Your task to perform on an android device: Empty the shopping cart on ebay. Search for "apple airpods pro" on ebay, select the first entry, add it to the cart, then select checkout. Image 0: 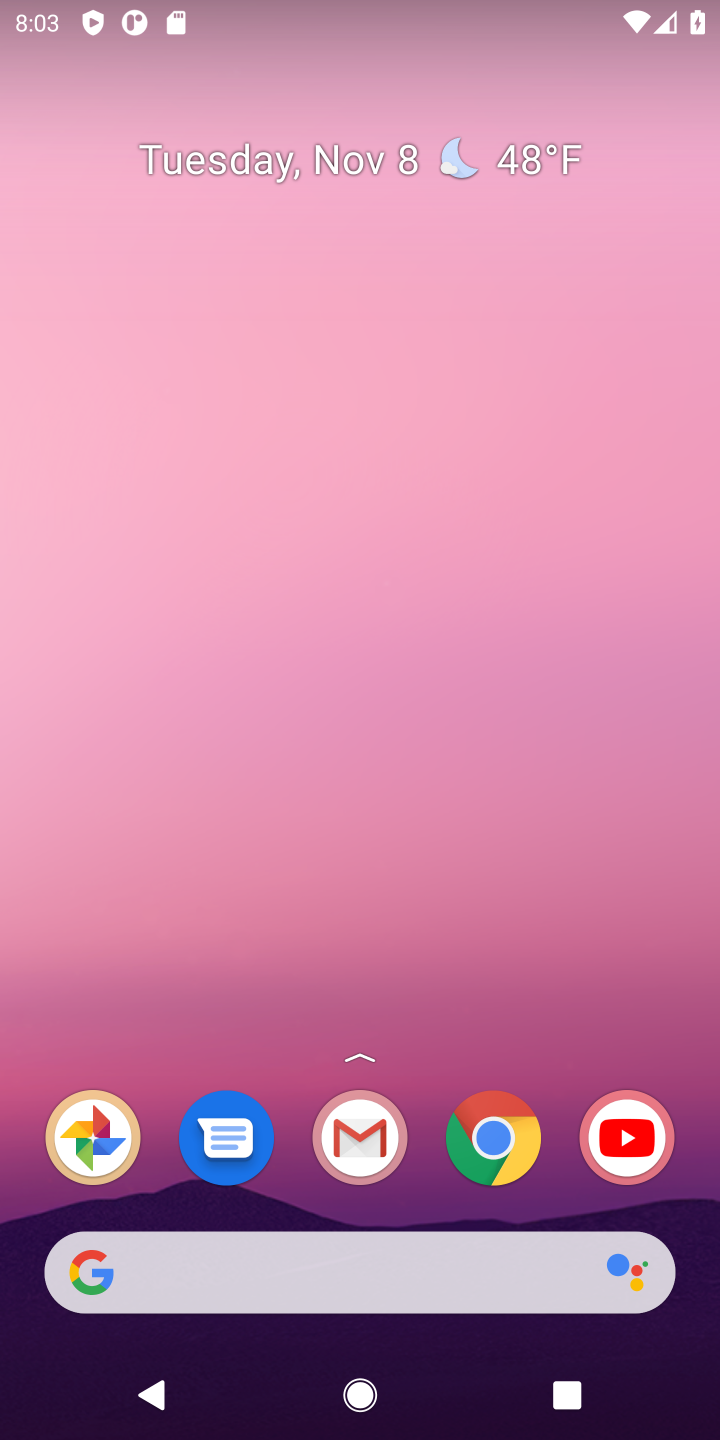
Step 0: click (497, 1158)
Your task to perform on an android device: Empty the shopping cart on ebay. Search for "apple airpods pro" on ebay, select the first entry, add it to the cart, then select checkout. Image 1: 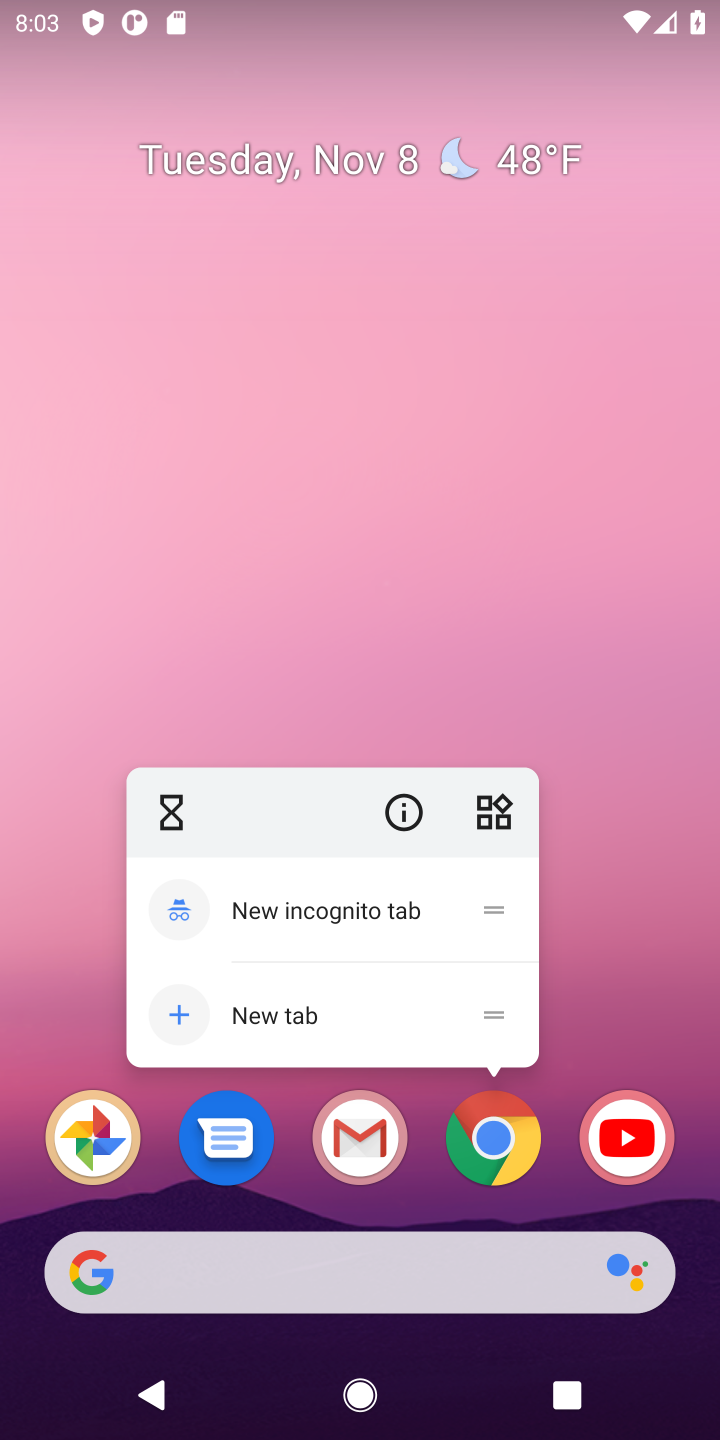
Step 1: click (488, 1142)
Your task to perform on an android device: Empty the shopping cart on ebay. Search for "apple airpods pro" on ebay, select the first entry, add it to the cart, then select checkout. Image 2: 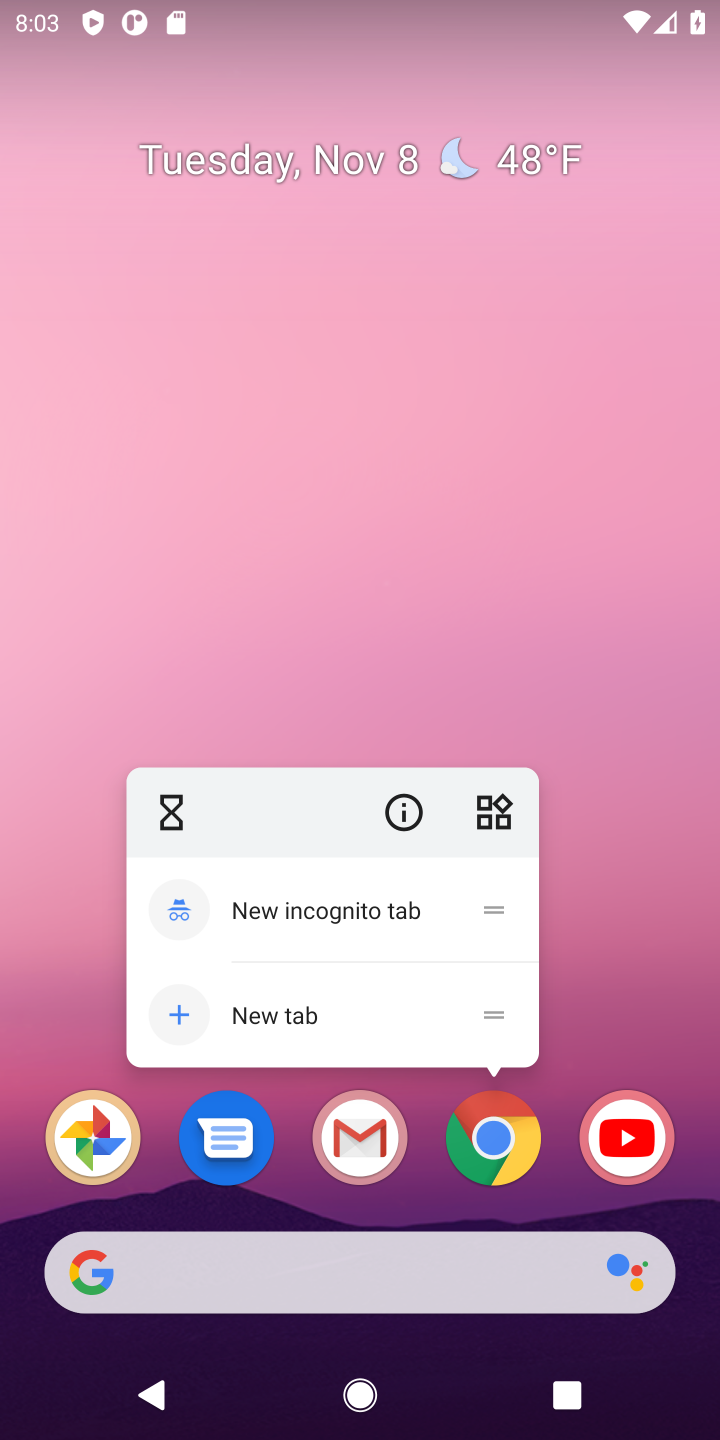
Step 2: click (488, 1144)
Your task to perform on an android device: Empty the shopping cart on ebay. Search for "apple airpods pro" on ebay, select the first entry, add it to the cart, then select checkout. Image 3: 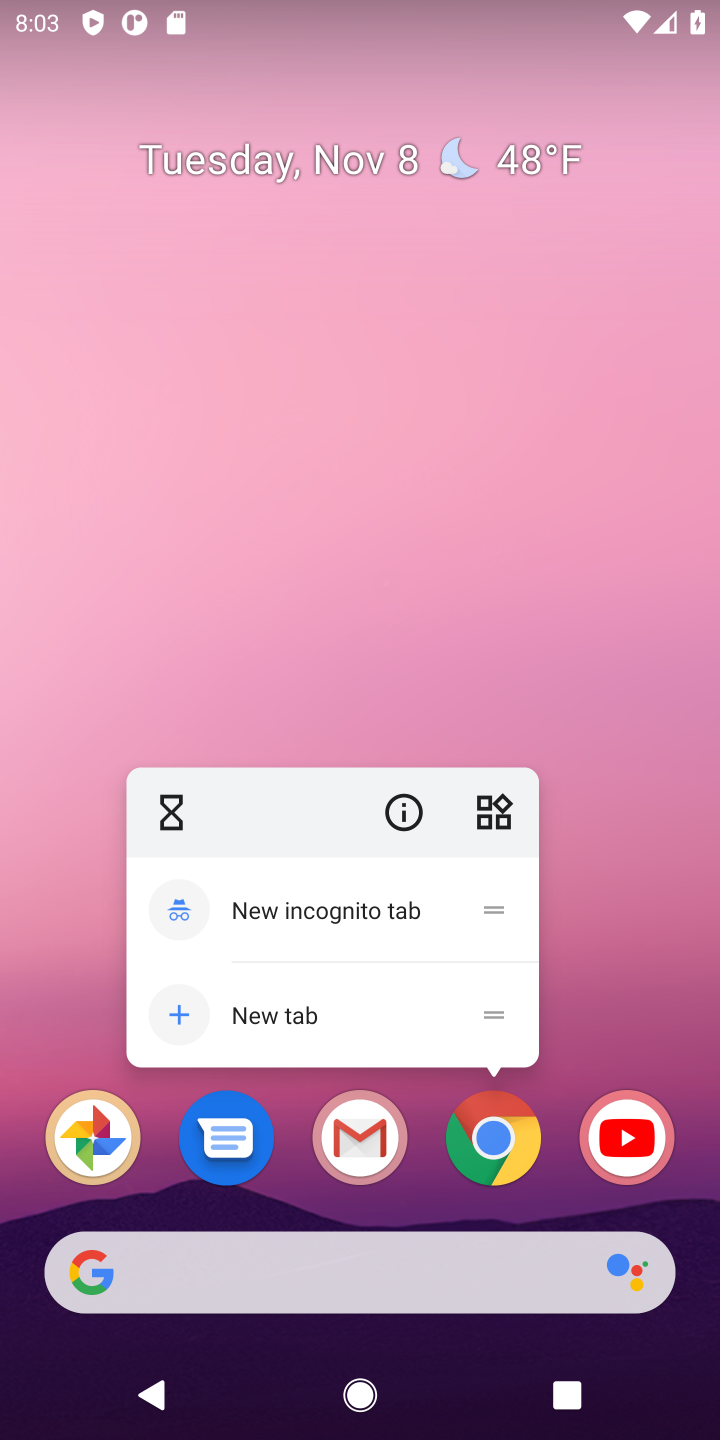
Step 3: click (488, 1155)
Your task to perform on an android device: Empty the shopping cart on ebay. Search for "apple airpods pro" on ebay, select the first entry, add it to the cart, then select checkout. Image 4: 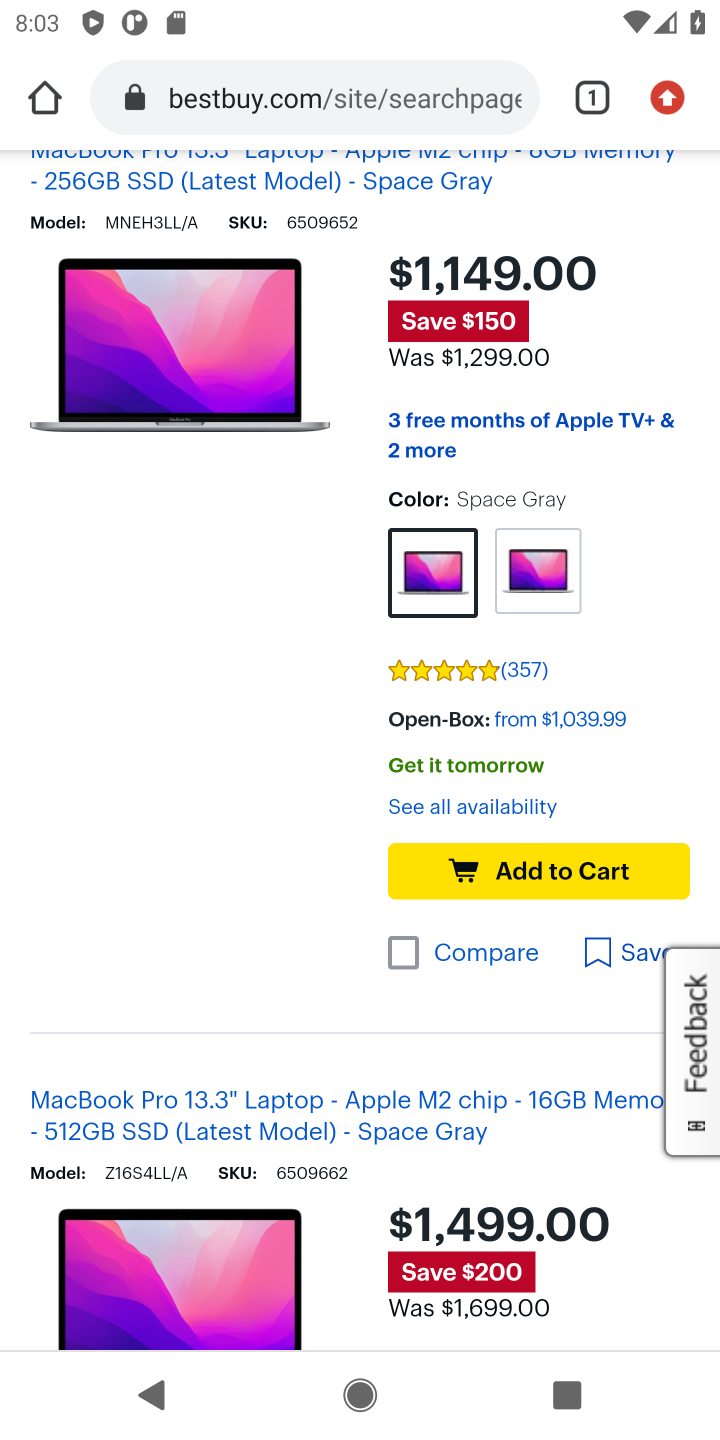
Step 4: click (416, 86)
Your task to perform on an android device: Empty the shopping cart on ebay. Search for "apple airpods pro" on ebay, select the first entry, add it to the cart, then select checkout. Image 5: 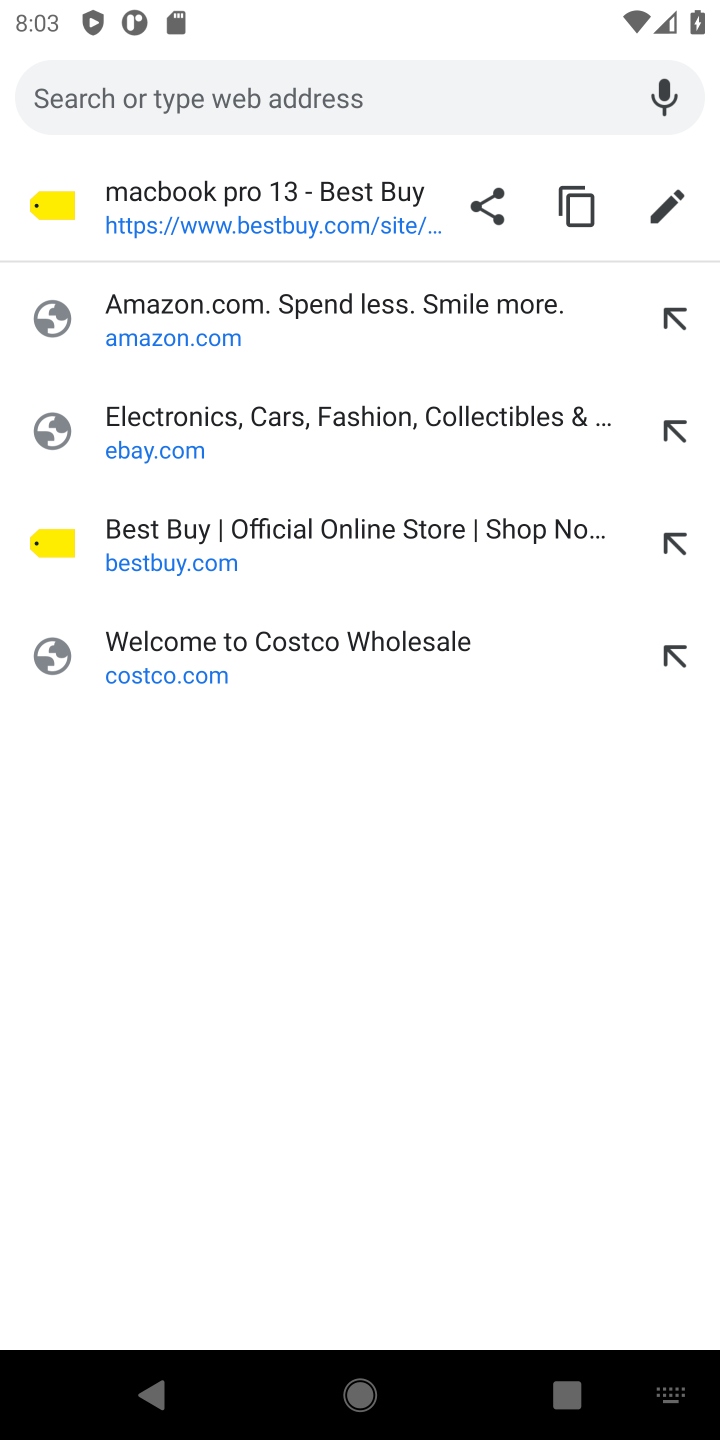
Step 5: click (109, 444)
Your task to perform on an android device: Empty the shopping cart on ebay. Search for "apple airpods pro" on ebay, select the first entry, add it to the cart, then select checkout. Image 6: 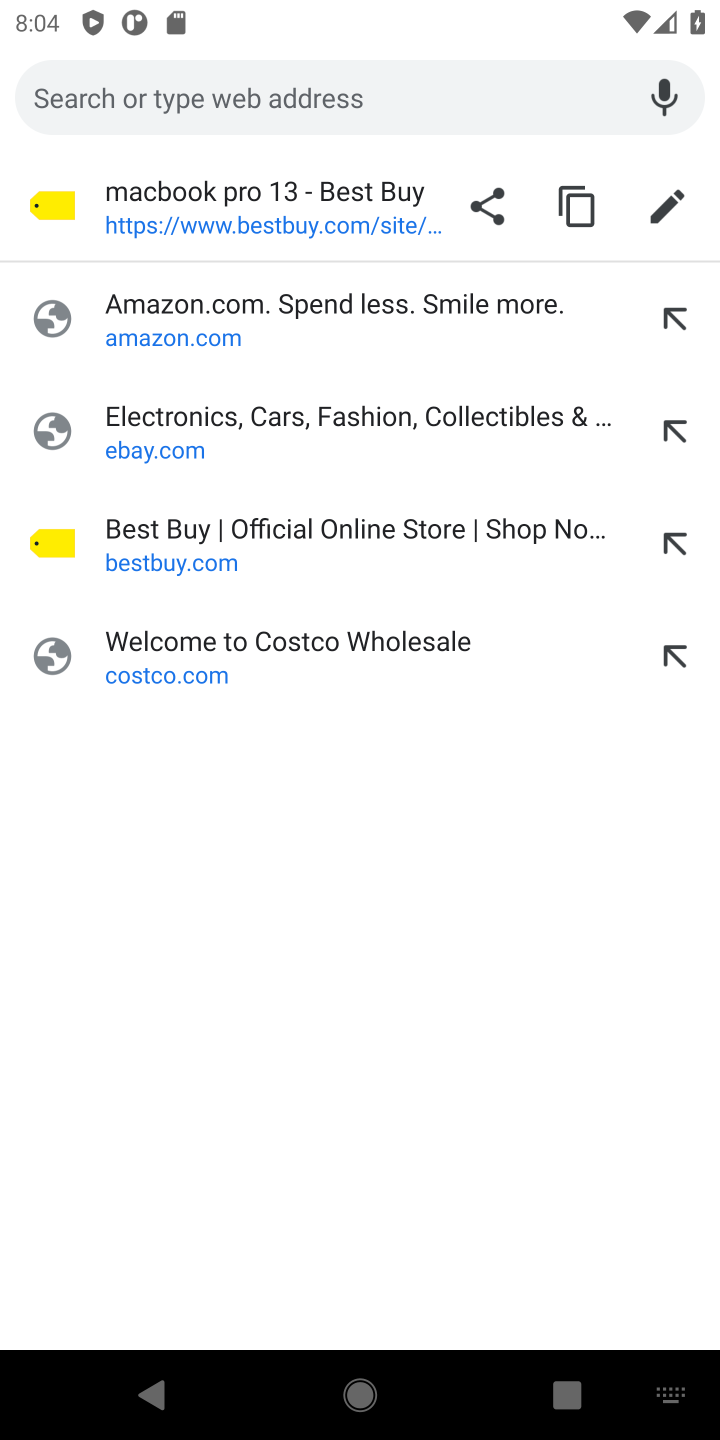
Step 6: click (135, 439)
Your task to perform on an android device: Empty the shopping cart on ebay. Search for "apple airpods pro" on ebay, select the first entry, add it to the cart, then select checkout. Image 7: 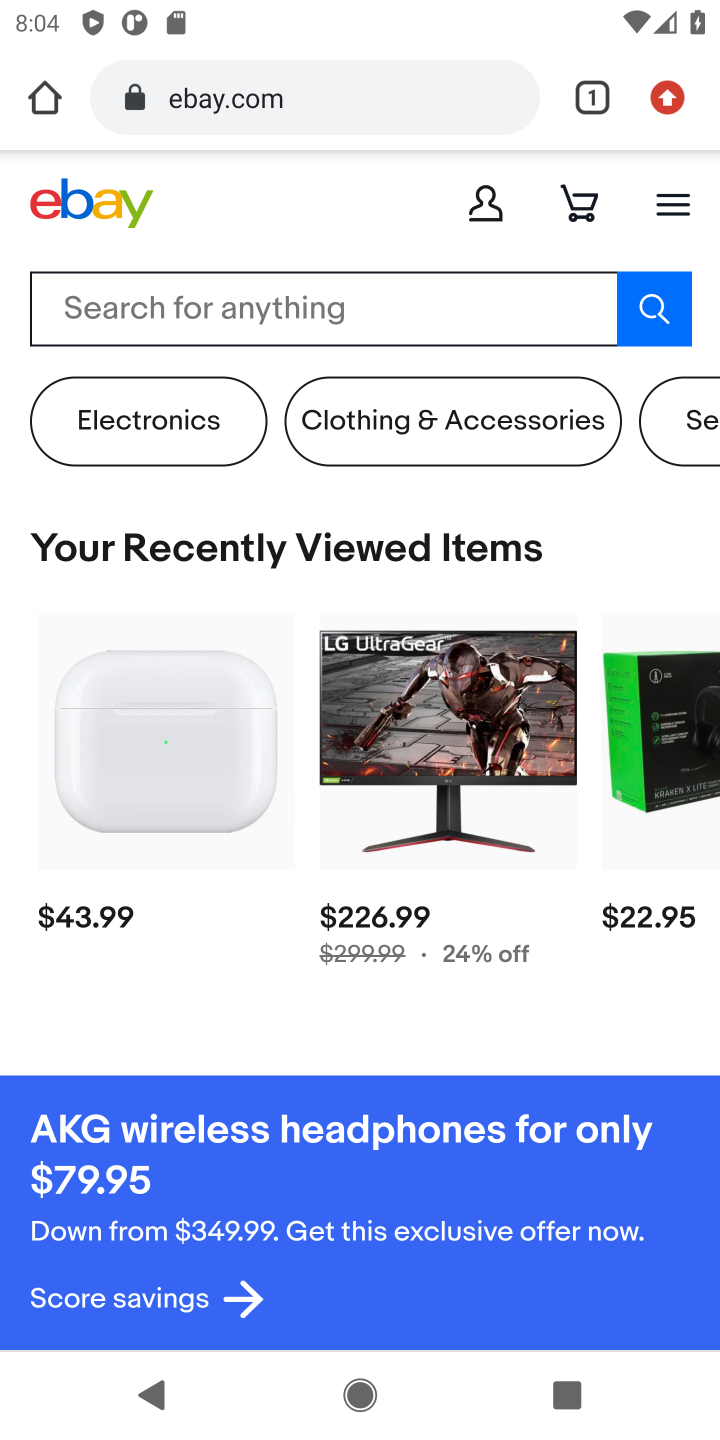
Step 7: click (218, 302)
Your task to perform on an android device: Empty the shopping cart on ebay. Search for "apple airpods pro" on ebay, select the first entry, add it to the cart, then select checkout. Image 8: 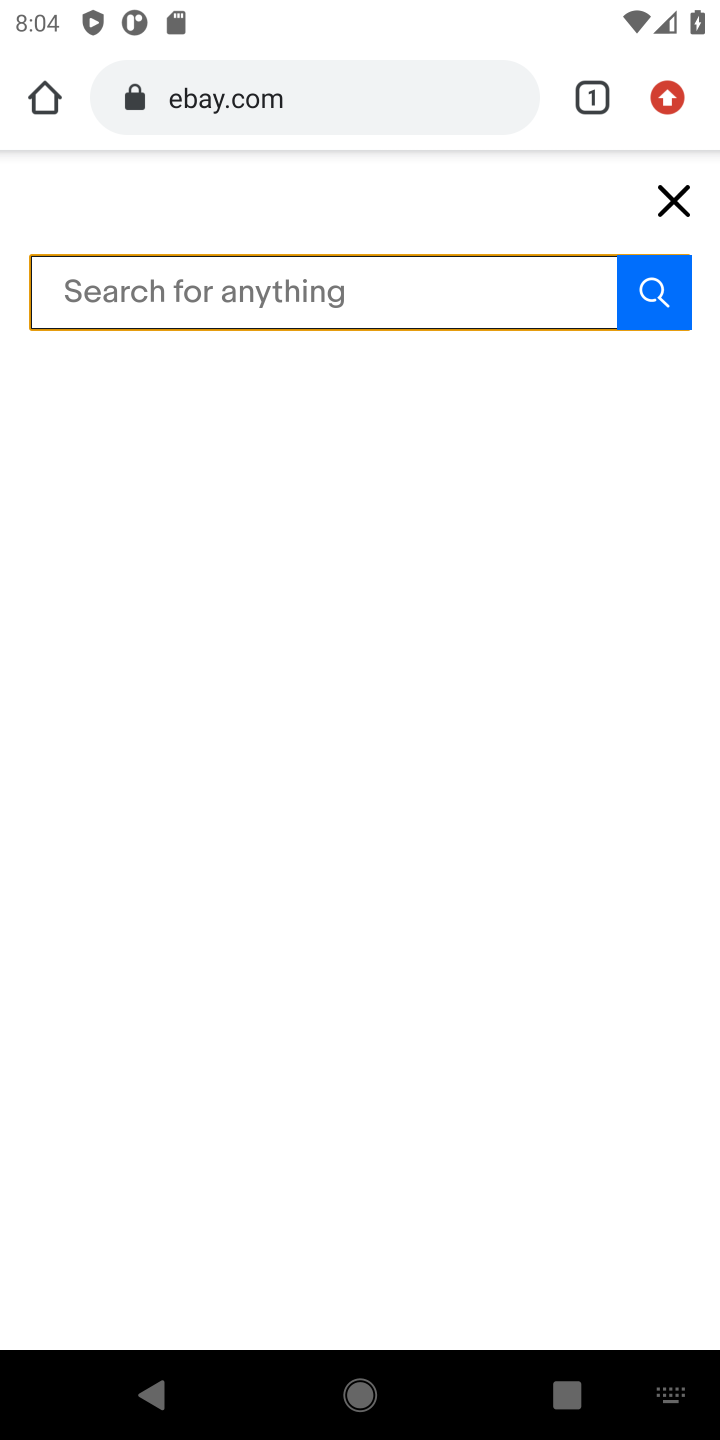
Step 8: type "apple airpods pro"
Your task to perform on an android device: Empty the shopping cart on ebay. Search for "apple airpods pro" on ebay, select the first entry, add it to the cart, then select checkout. Image 9: 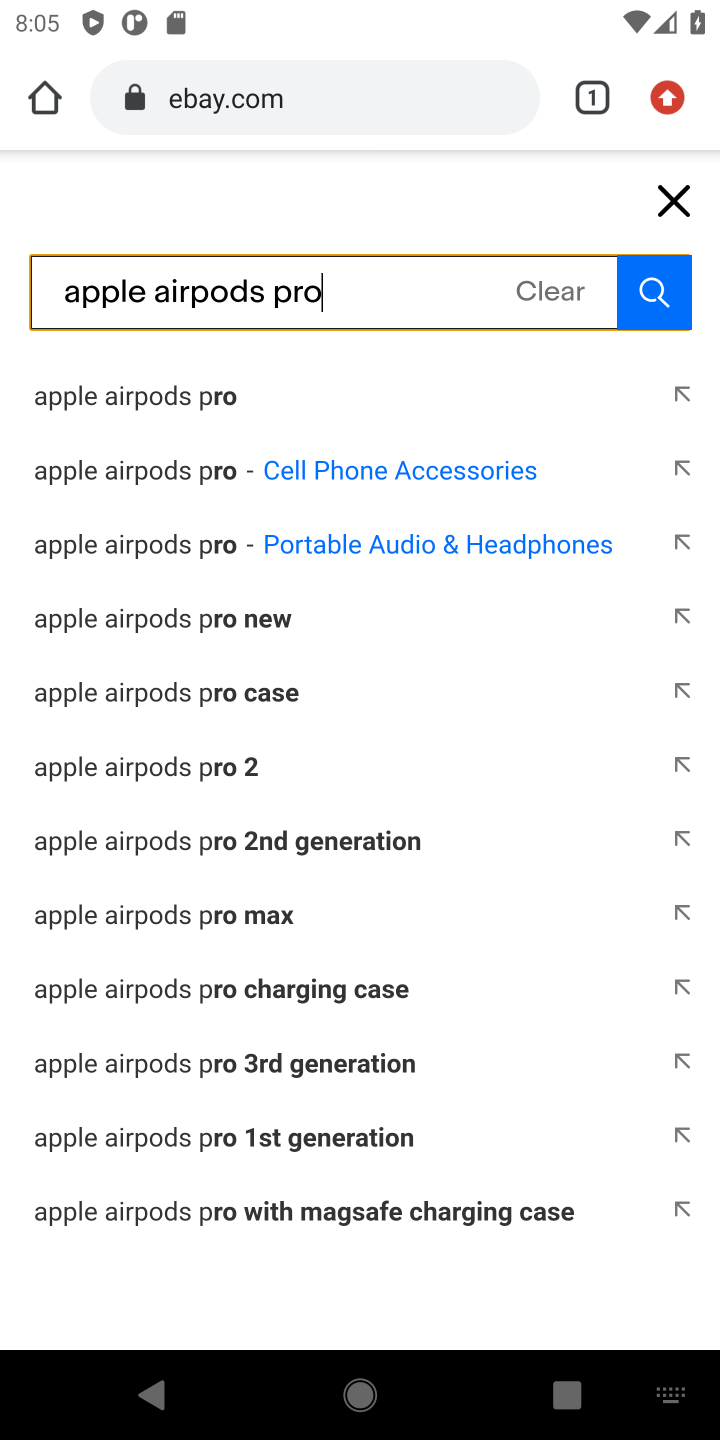
Step 9: press enter
Your task to perform on an android device: Empty the shopping cart on ebay. Search for "apple airpods pro" on ebay, select the first entry, add it to the cart, then select checkout. Image 10: 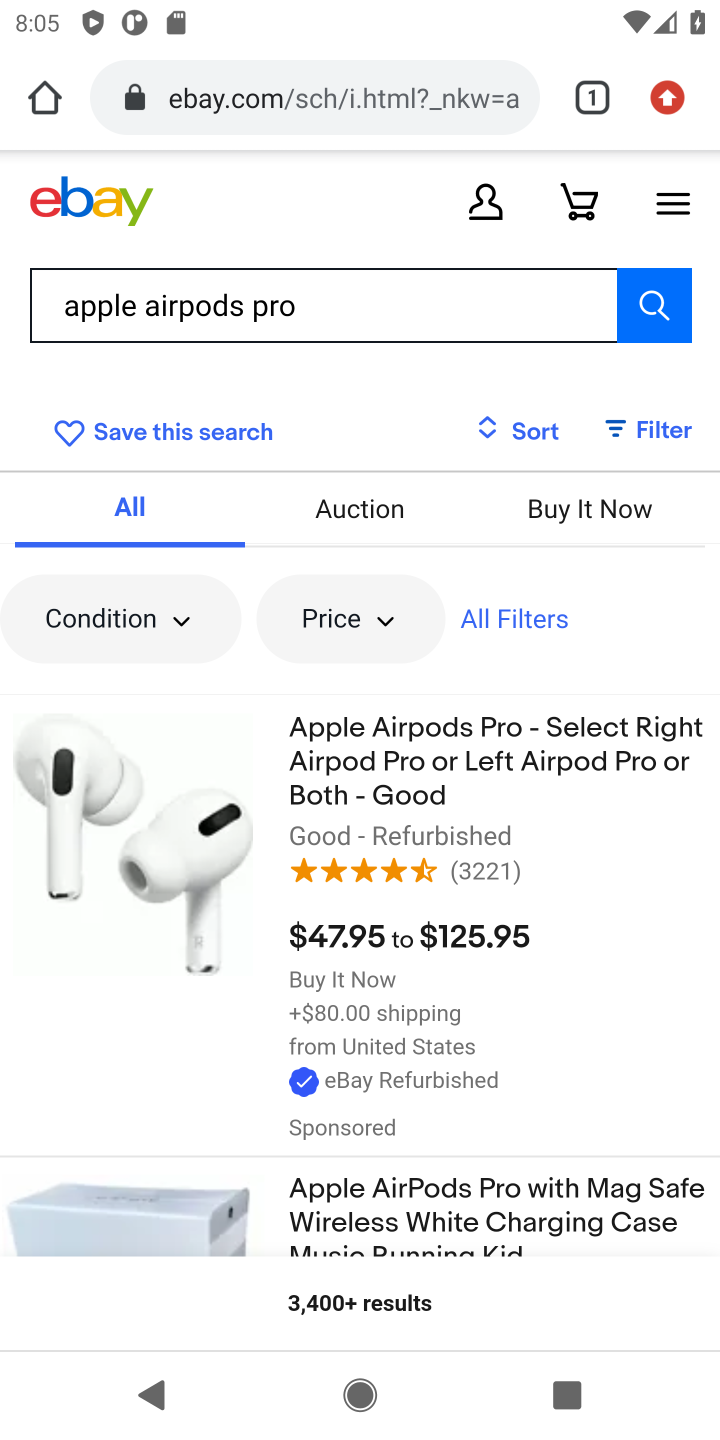
Step 10: click (494, 789)
Your task to perform on an android device: Empty the shopping cart on ebay. Search for "apple airpods pro" on ebay, select the first entry, add it to the cart, then select checkout. Image 11: 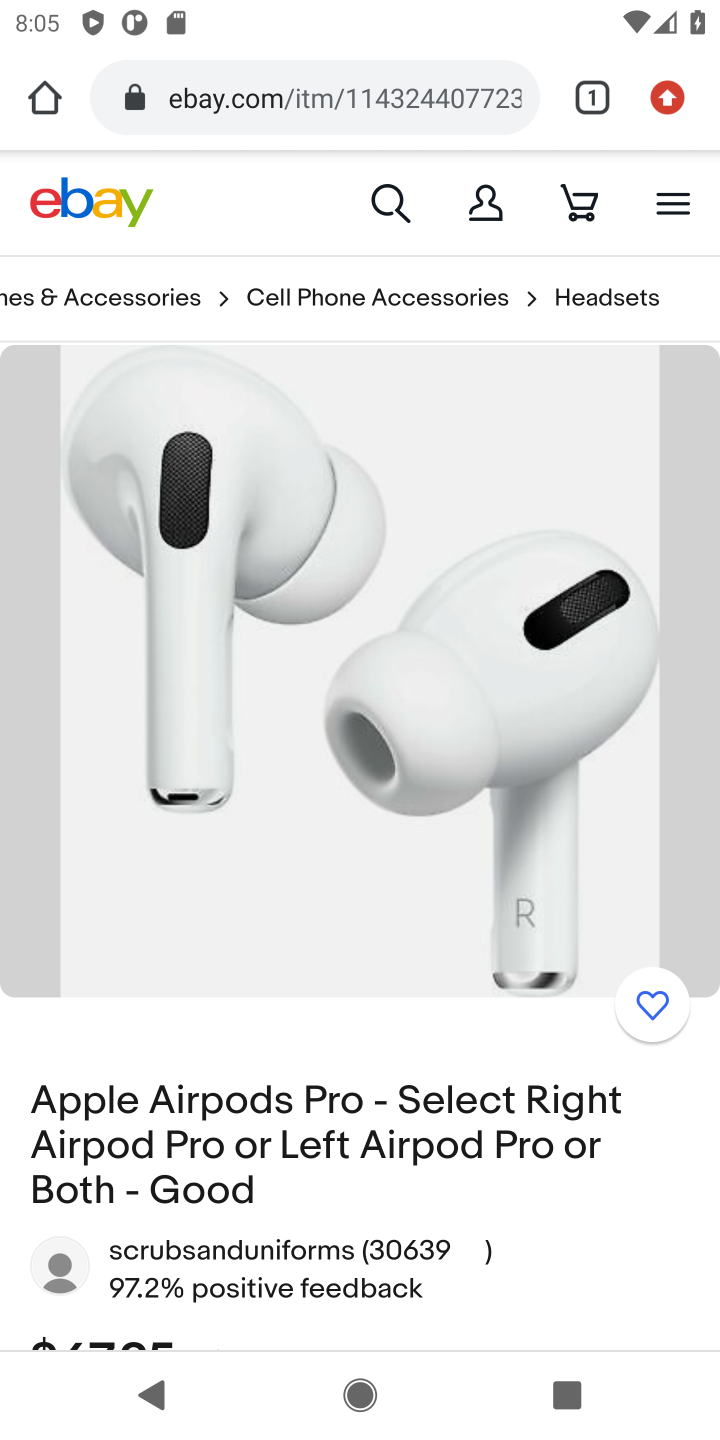
Step 11: drag from (357, 1120) to (451, 195)
Your task to perform on an android device: Empty the shopping cart on ebay. Search for "apple airpods pro" on ebay, select the first entry, add it to the cart, then select checkout. Image 12: 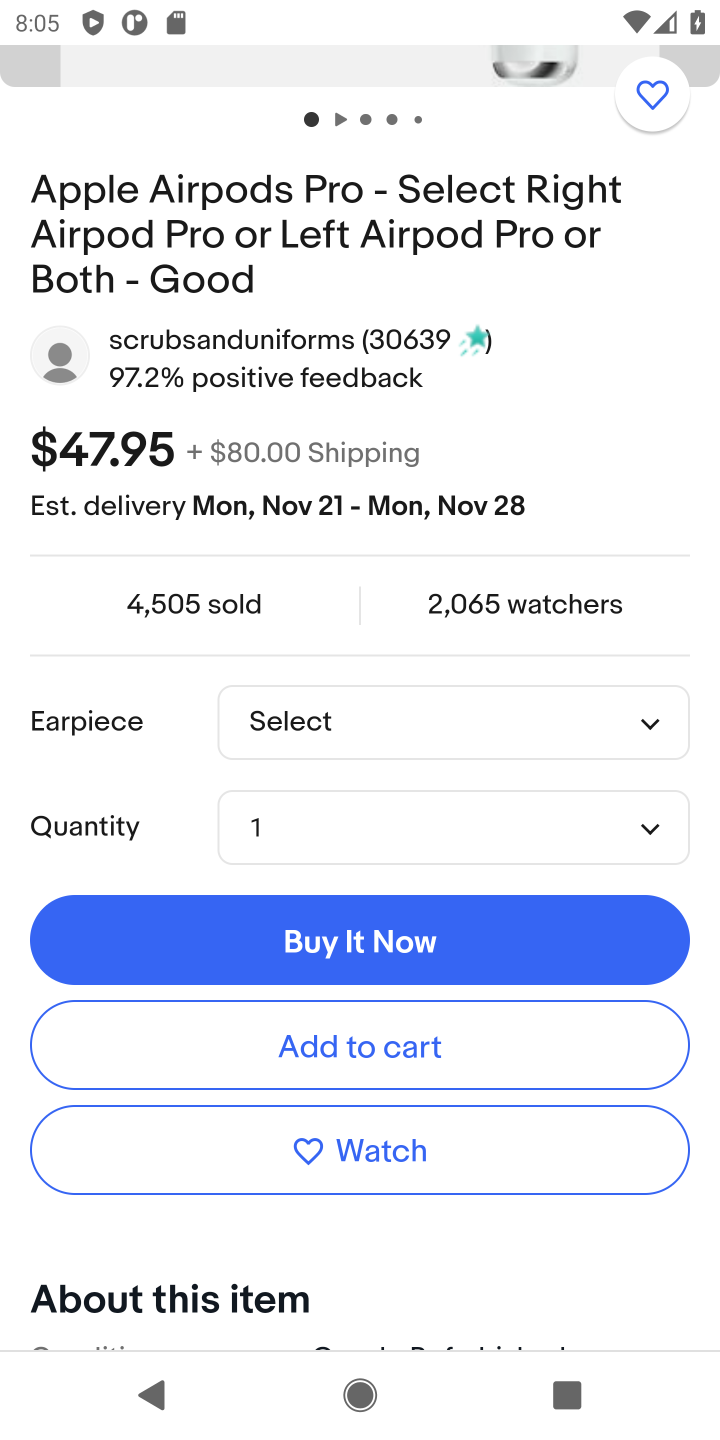
Step 12: click (331, 1038)
Your task to perform on an android device: Empty the shopping cart on ebay. Search for "apple airpods pro" on ebay, select the first entry, add it to the cart, then select checkout. Image 13: 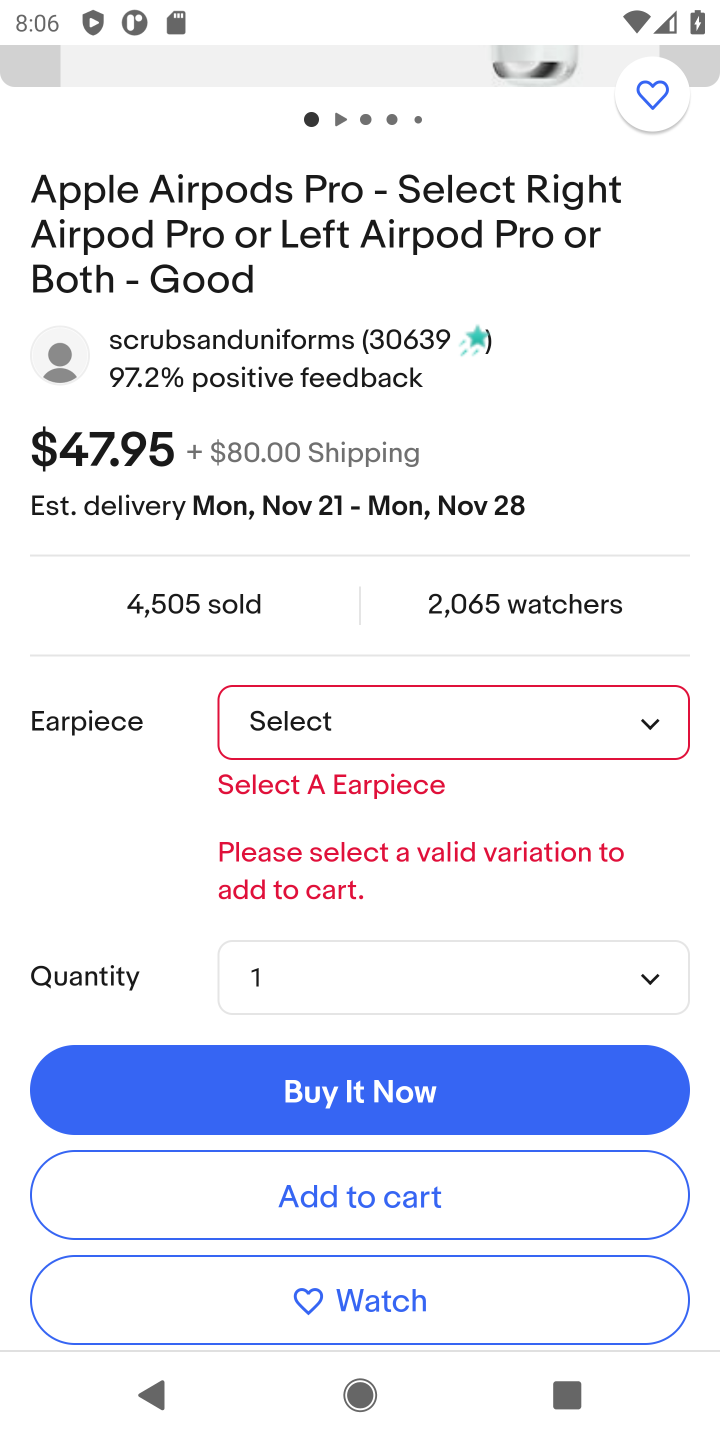
Step 13: click (651, 714)
Your task to perform on an android device: Empty the shopping cart on ebay. Search for "apple airpods pro" on ebay, select the first entry, add it to the cart, then select checkout. Image 14: 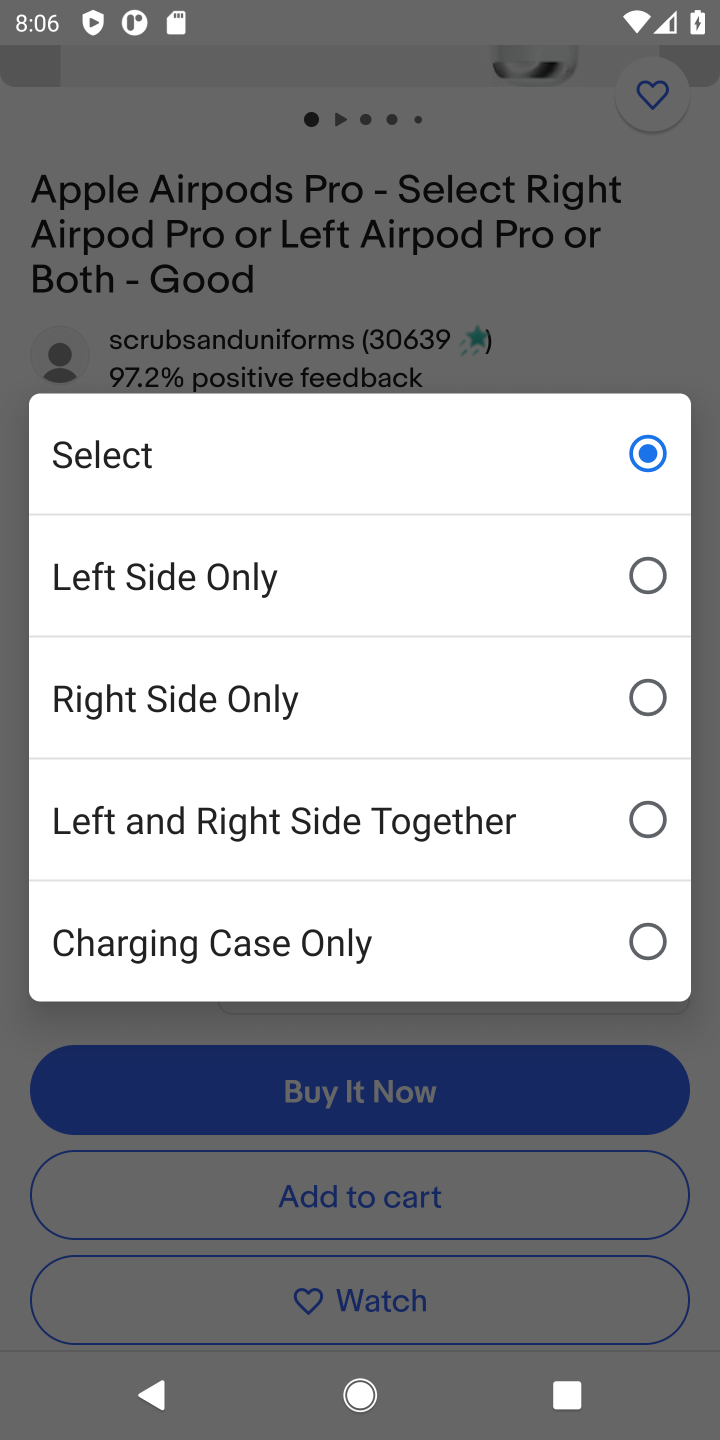
Step 14: click (651, 572)
Your task to perform on an android device: Empty the shopping cart on ebay. Search for "apple airpods pro" on ebay, select the first entry, add it to the cart, then select checkout. Image 15: 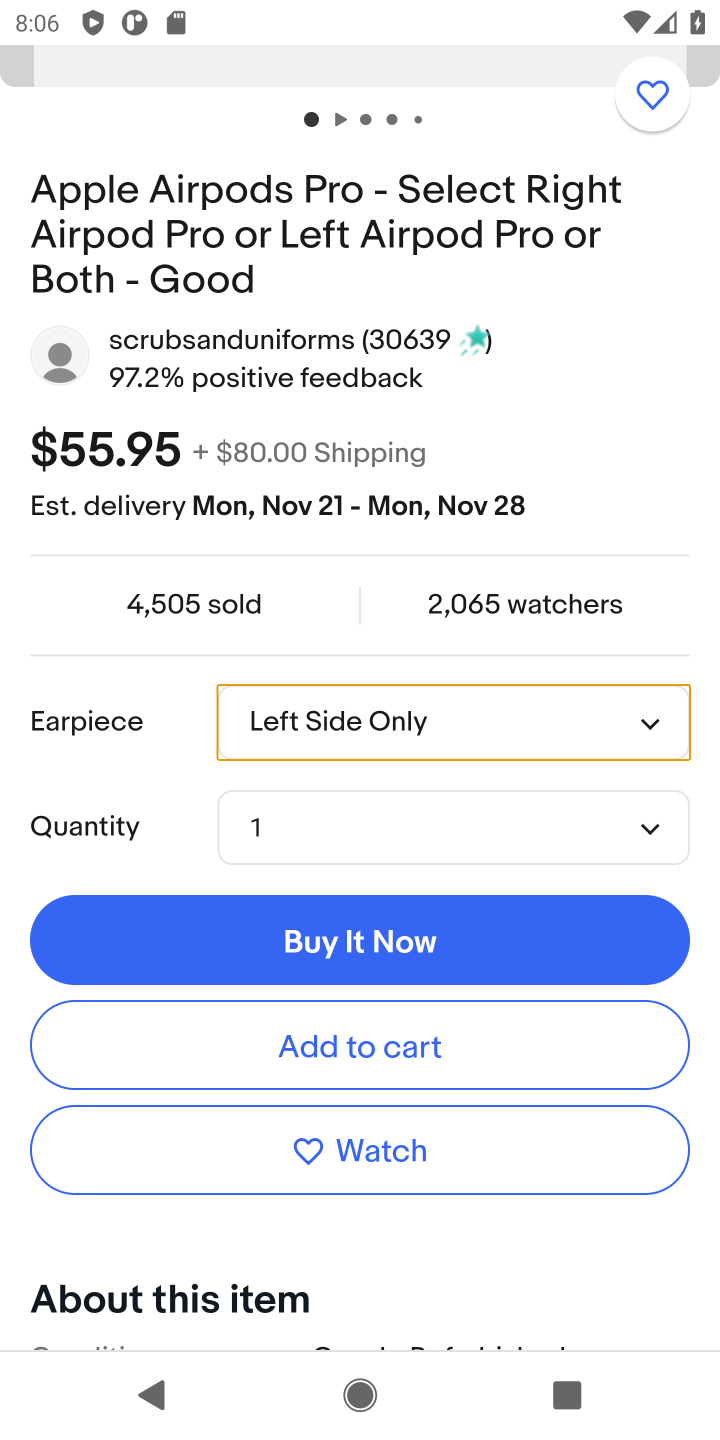
Step 15: click (356, 1046)
Your task to perform on an android device: Empty the shopping cart on ebay. Search for "apple airpods pro" on ebay, select the first entry, add it to the cart, then select checkout. Image 16: 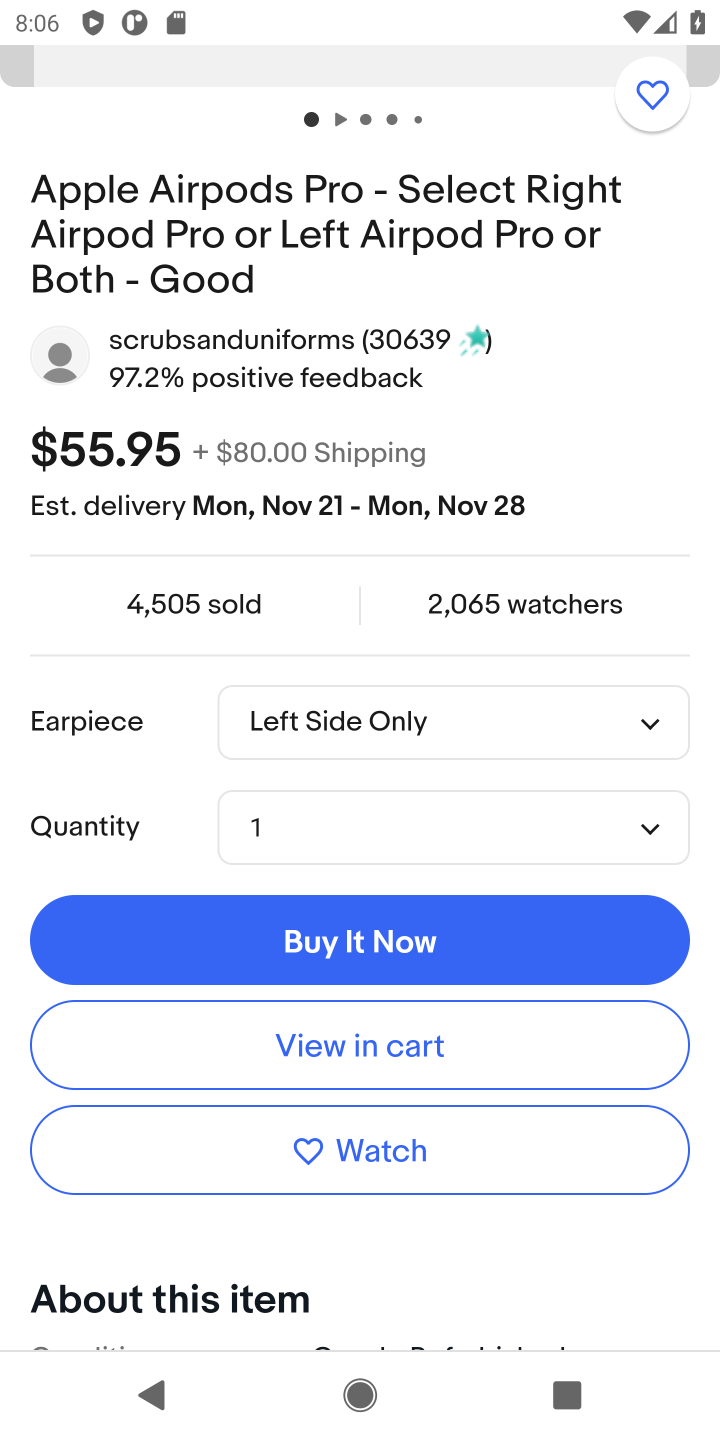
Step 16: click (340, 1042)
Your task to perform on an android device: Empty the shopping cart on ebay. Search for "apple airpods pro" on ebay, select the first entry, add it to the cart, then select checkout. Image 17: 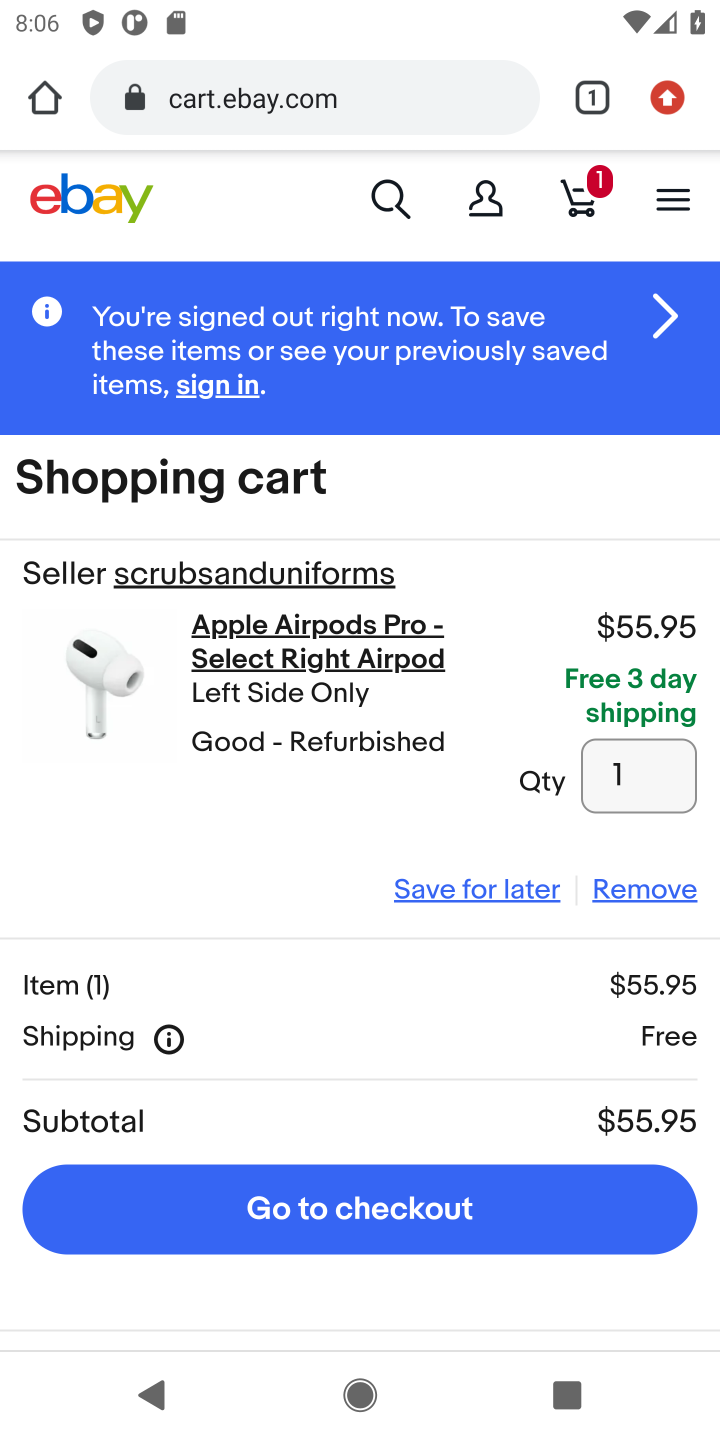
Step 17: click (370, 1203)
Your task to perform on an android device: Empty the shopping cart on ebay. Search for "apple airpods pro" on ebay, select the first entry, add it to the cart, then select checkout. Image 18: 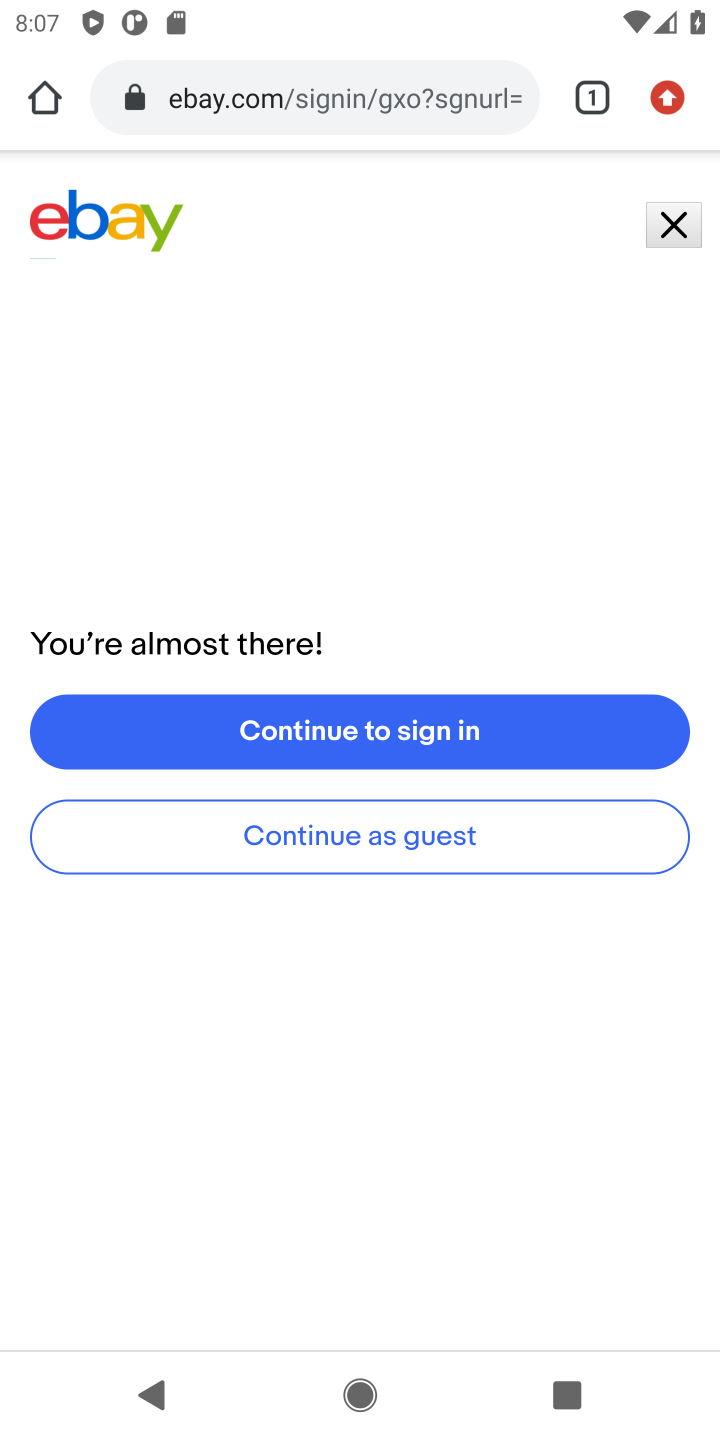
Step 18: task complete